Your task to perform on an android device: Go to location settings Image 0: 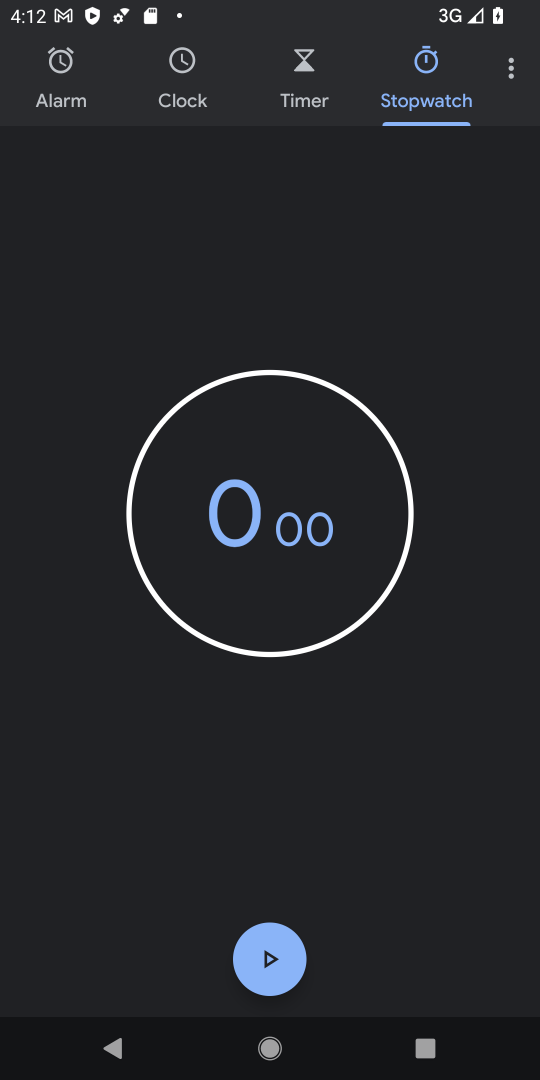
Step 0: press home button
Your task to perform on an android device: Go to location settings Image 1: 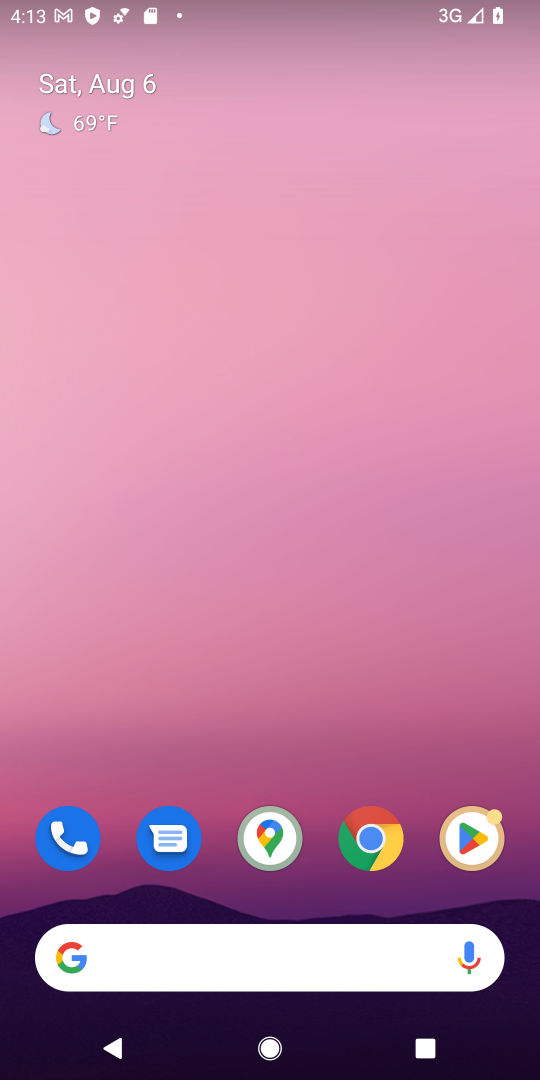
Step 1: drag from (63, 841) to (289, 243)
Your task to perform on an android device: Go to location settings Image 2: 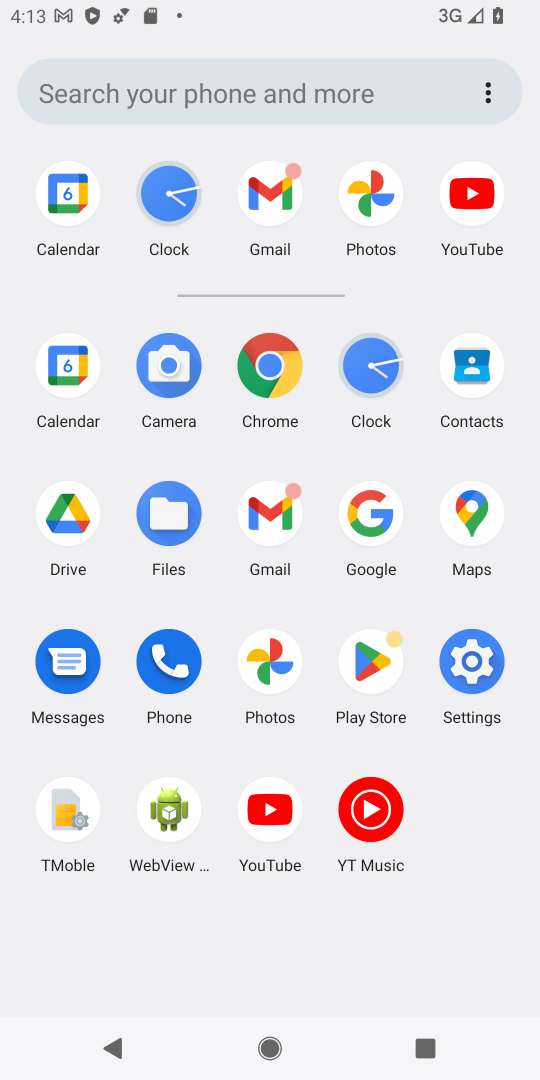
Step 2: click (458, 669)
Your task to perform on an android device: Go to location settings Image 3: 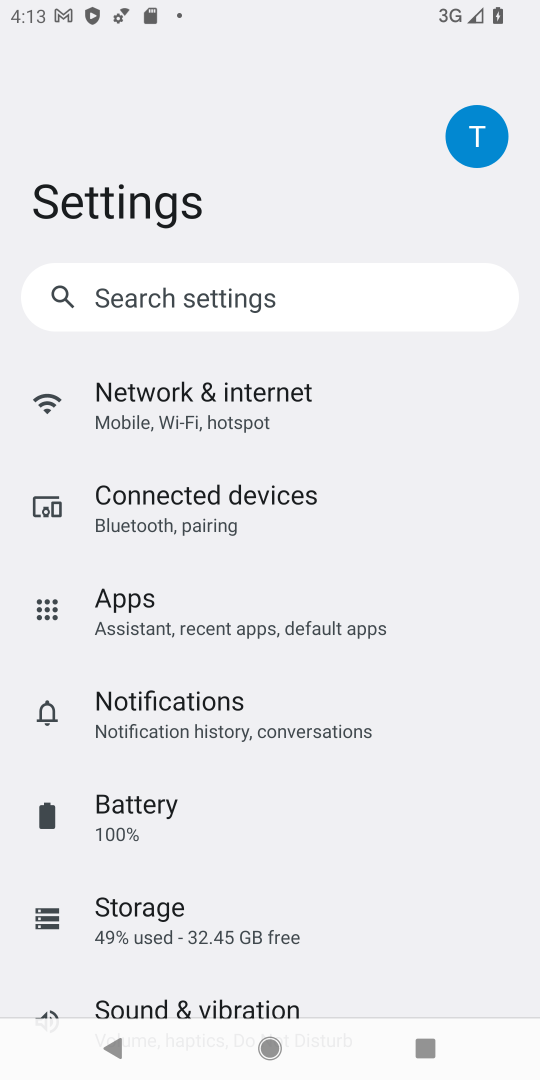
Step 3: drag from (23, 703) to (211, 255)
Your task to perform on an android device: Go to location settings Image 4: 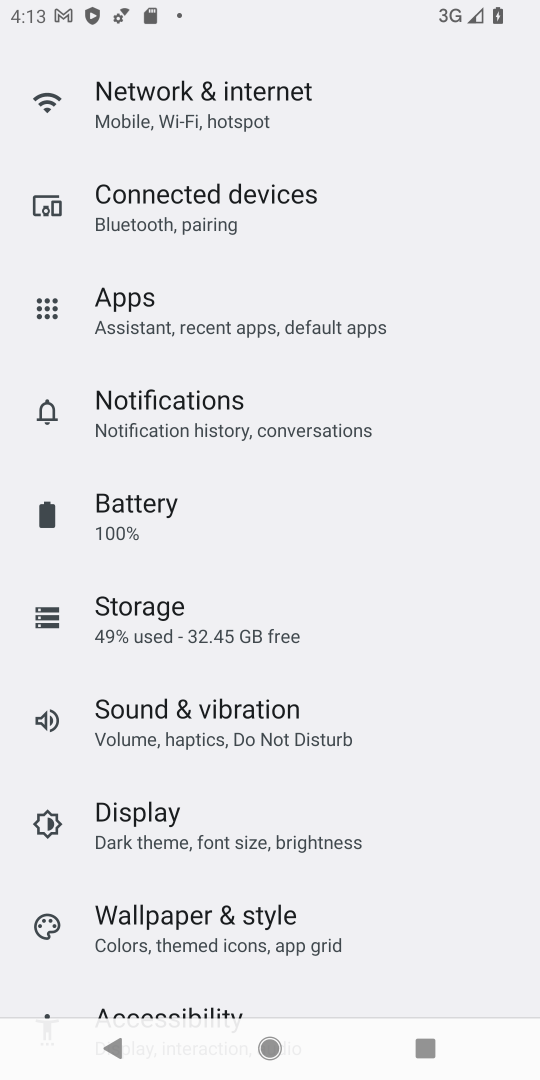
Step 4: drag from (64, 650) to (233, 277)
Your task to perform on an android device: Go to location settings Image 5: 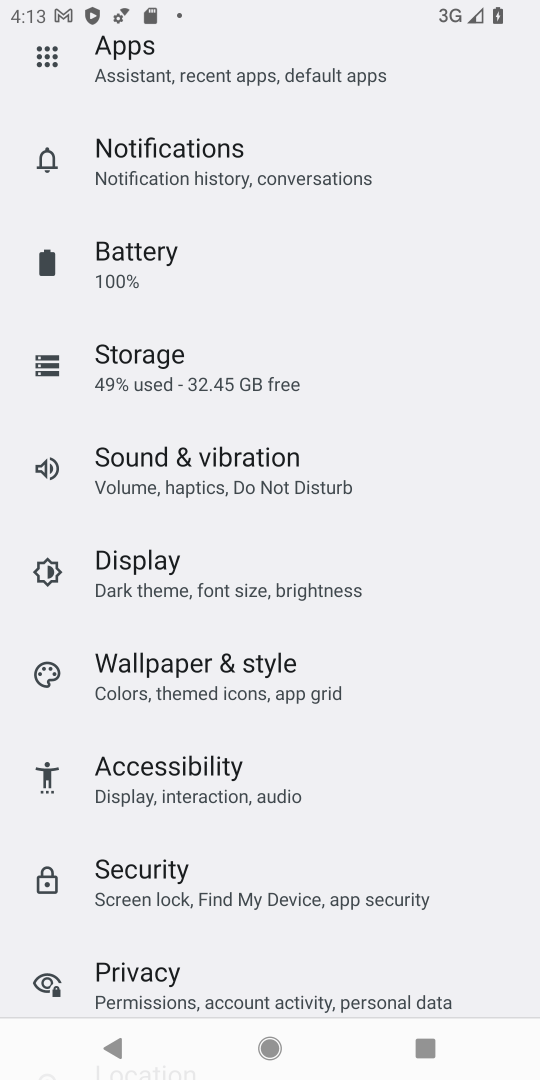
Step 5: drag from (82, 291) to (107, 856)
Your task to perform on an android device: Go to location settings Image 6: 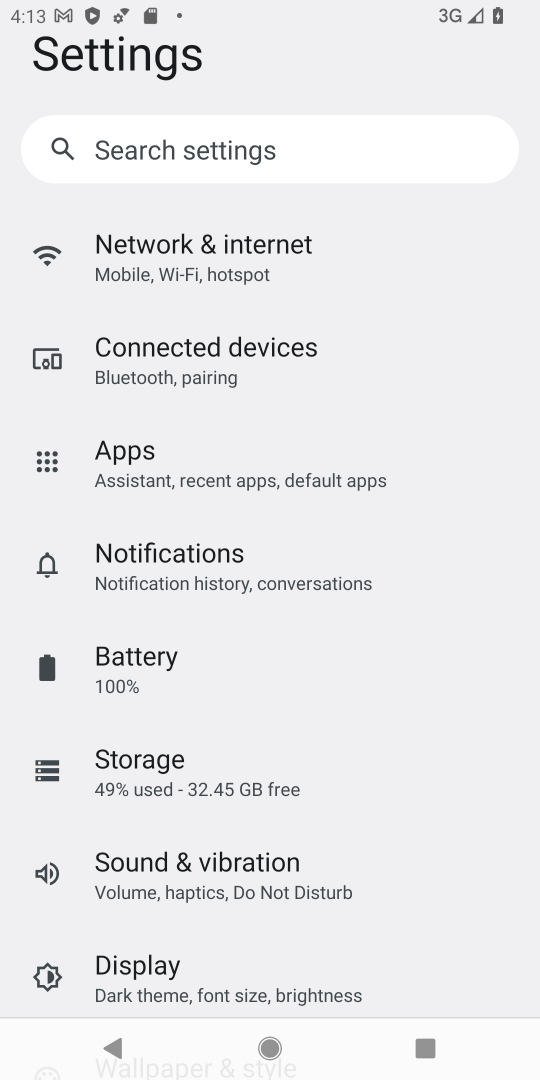
Step 6: drag from (88, 621) to (336, 202)
Your task to perform on an android device: Go to location settings Image 7: 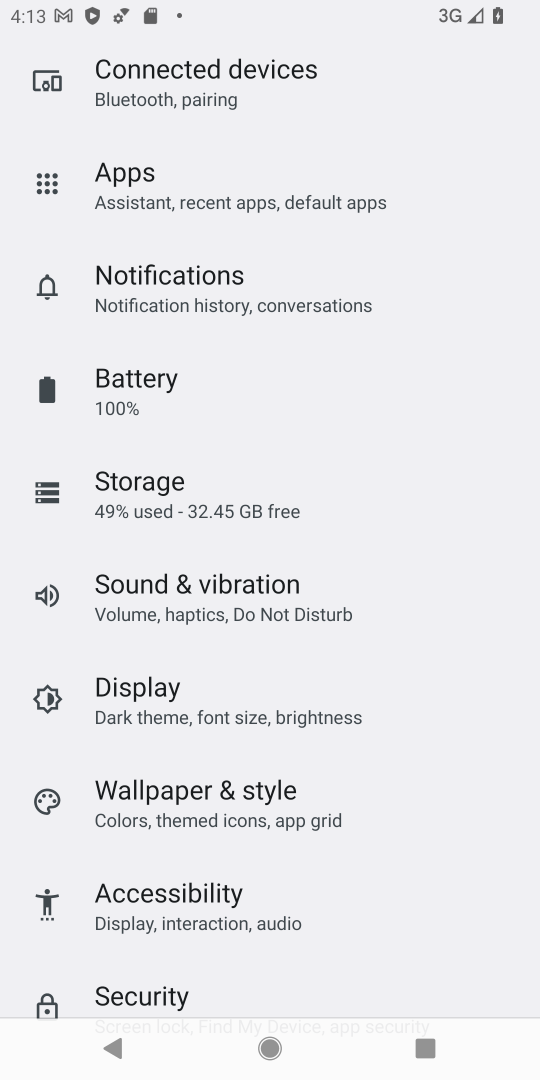
Step 7: drag from (14, 740) to (246, 242)
Your task to perform on an android device: Go to location settings Image 8: 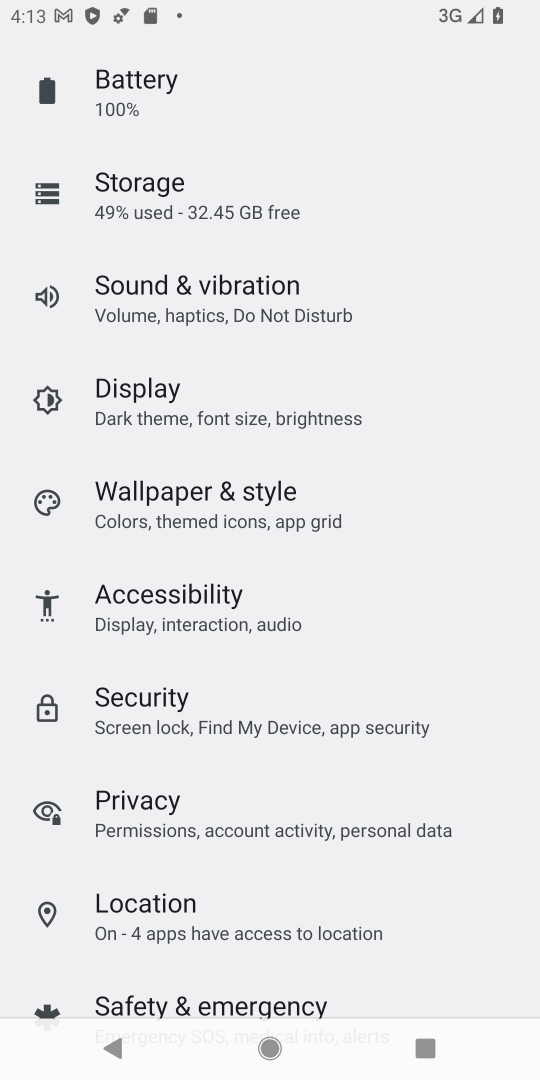
Step 8: click (152, 900)
Your task to perform on an android device: Go to location settings Image 9: 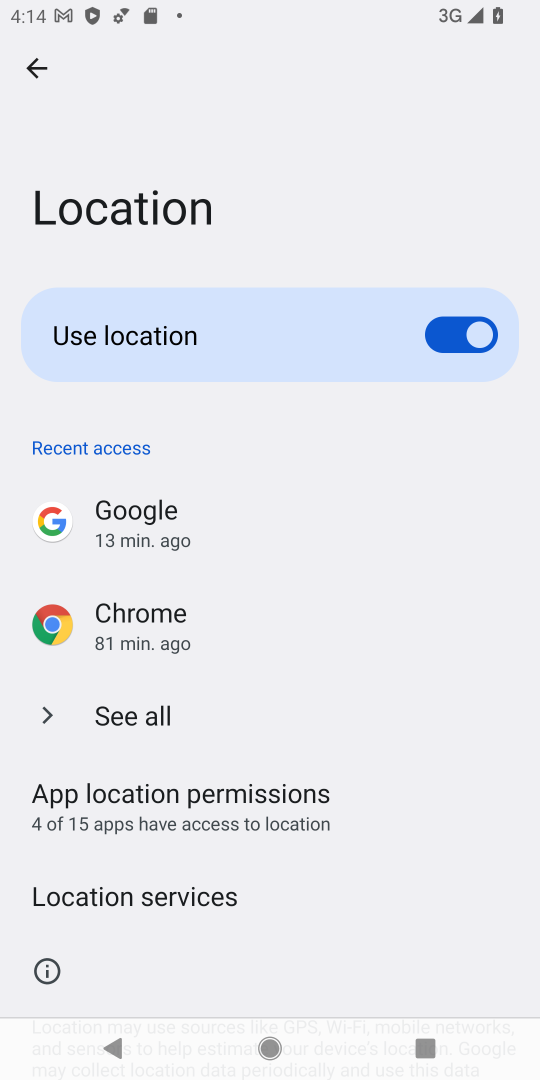
Step 9: task complete